Your task to perform on an android device: turn on javascript in the chrome app Image 0: 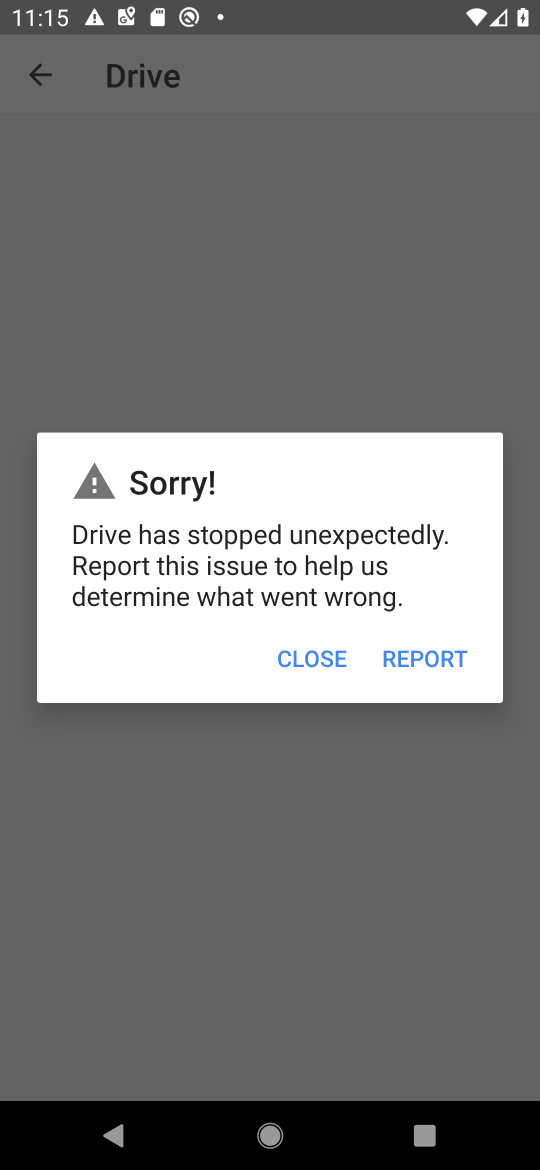
Step 0: press home button
Your task to perform on an android device: turn on javascript in the chrome app Image 1: 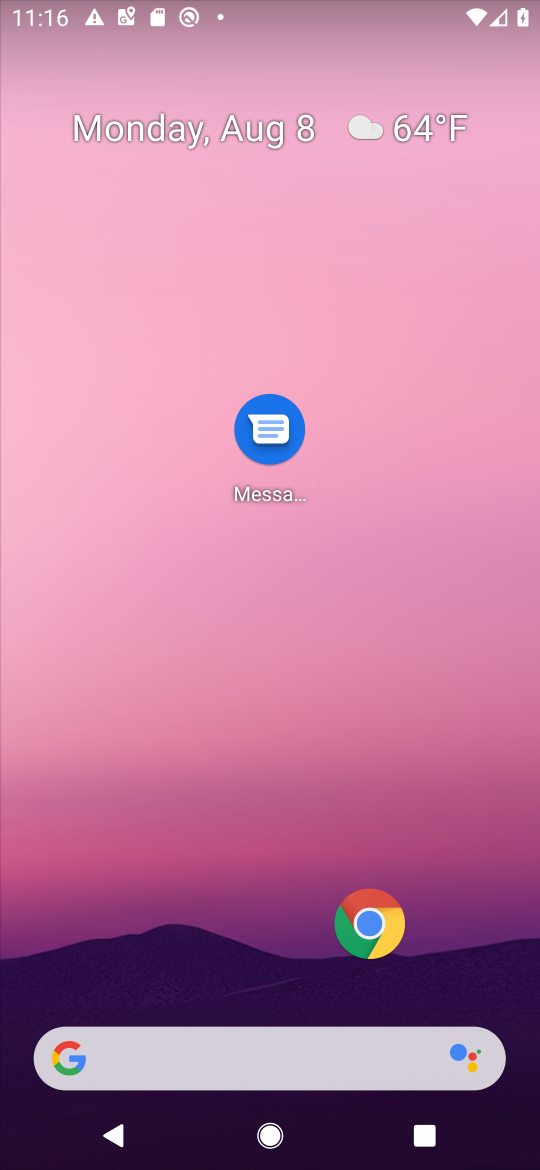
Step 1: click (373, 930)
Your task to perform on an android device: turn on javascript in the chrome app Image 2: 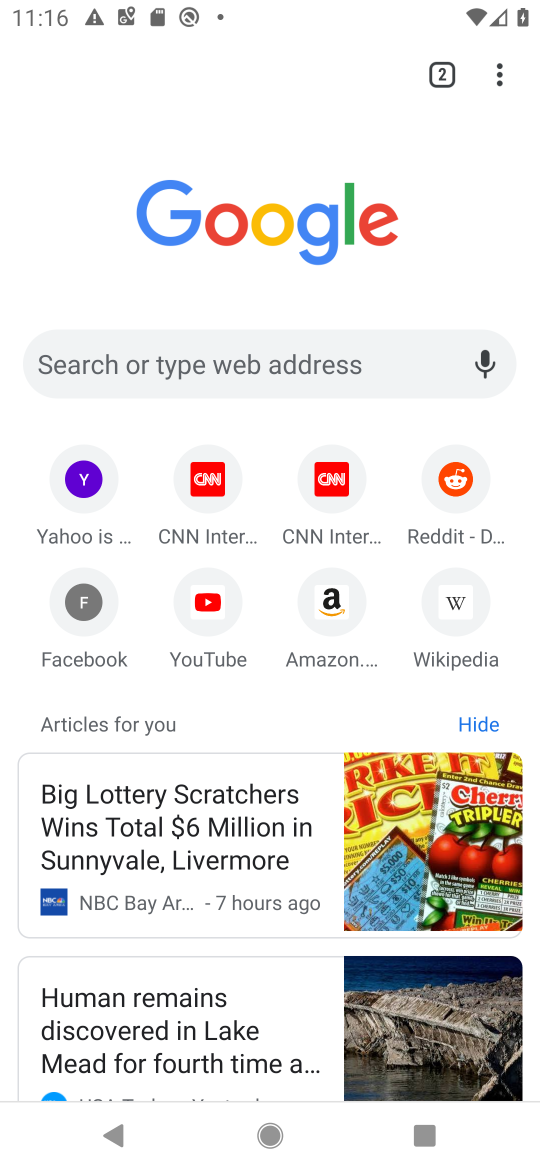
Step 2: click (505, 69)
Your task to perform on an android device: turn on javascript in the chrome app Image 3: 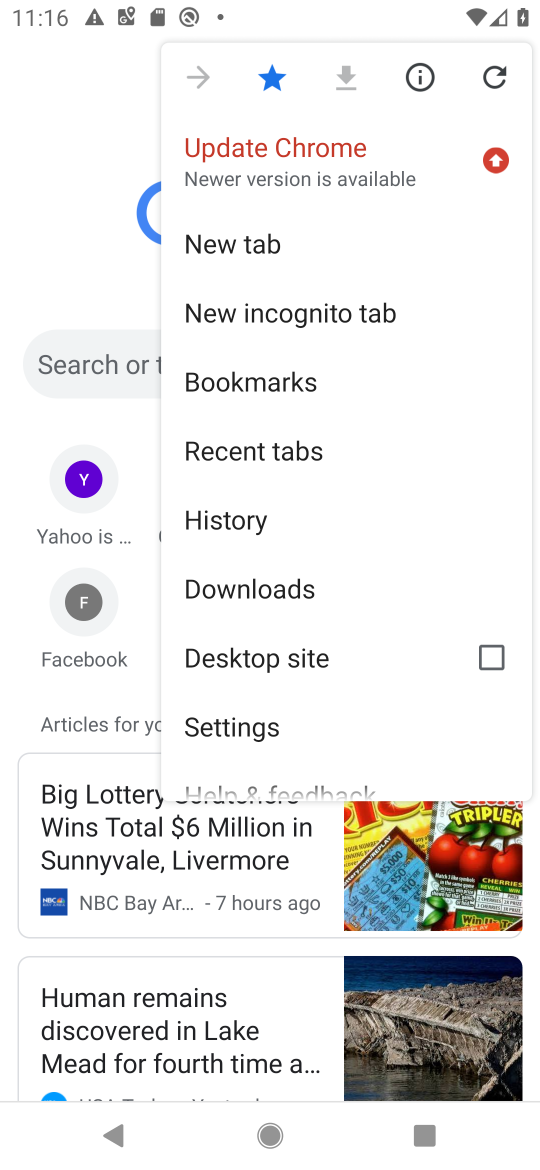
Step 3: click (222, 732)
Your task to perform on an android device: turn on javascript in the chrome app Image 4: 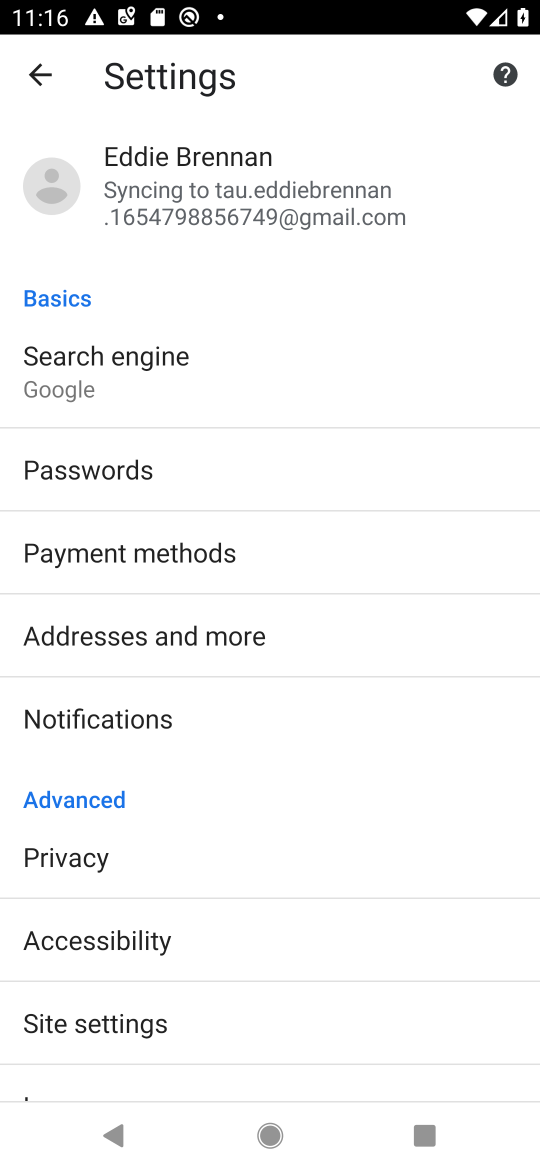
Step 4: click (114, 1008)
Your task to perform on an android device: turn on javascript in the chrome app Image 5: 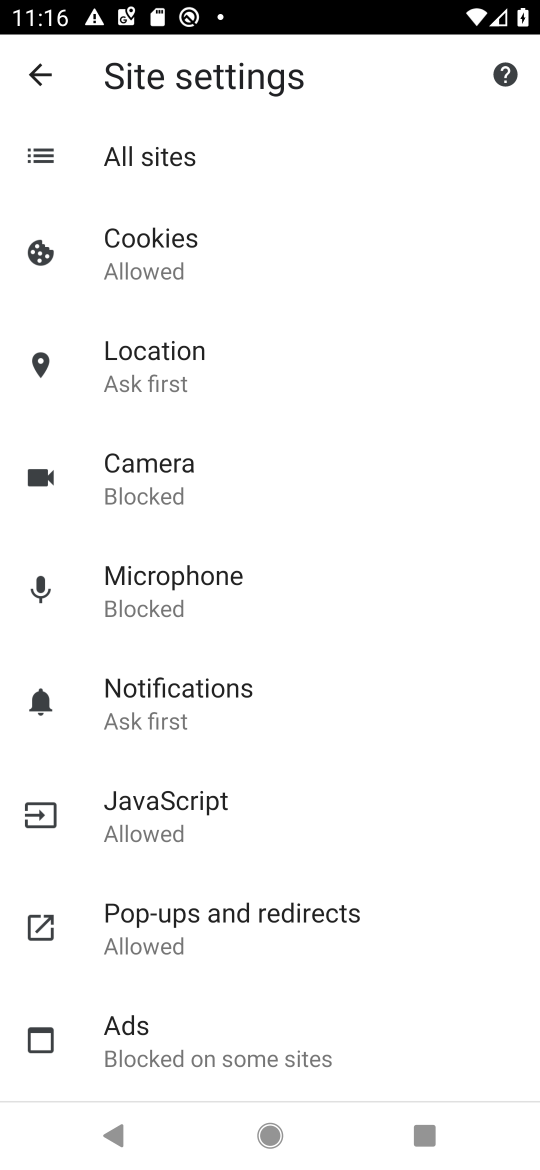
Step 5: click (156, 814)
Your task to perform on an android device: turn on javascript in the chrome app Image 6: 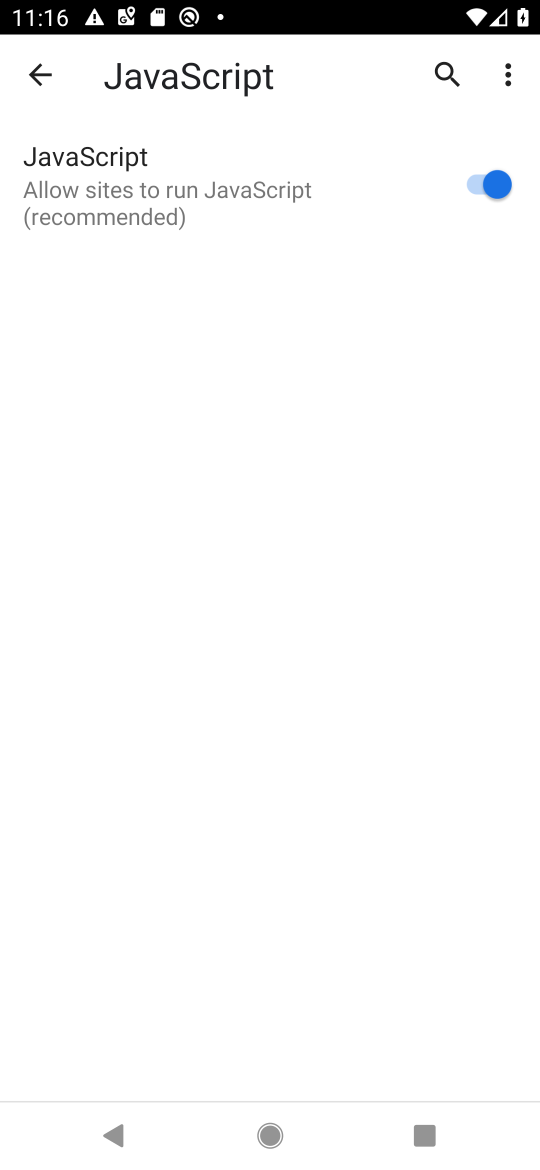
Step 6: task complete